Your task to perform on an android device: add a label to a message in the gmail app Image 0: 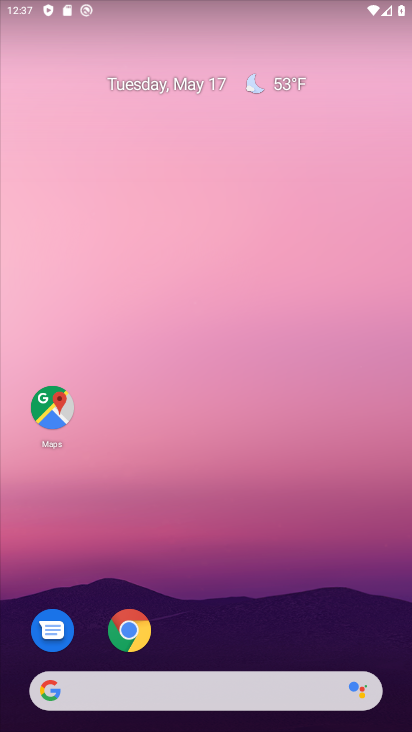
Step 0: drag from (195, 629) to (219, 163)
Your task to perform on an android device: add a label to a message in the gmail app Image 1: 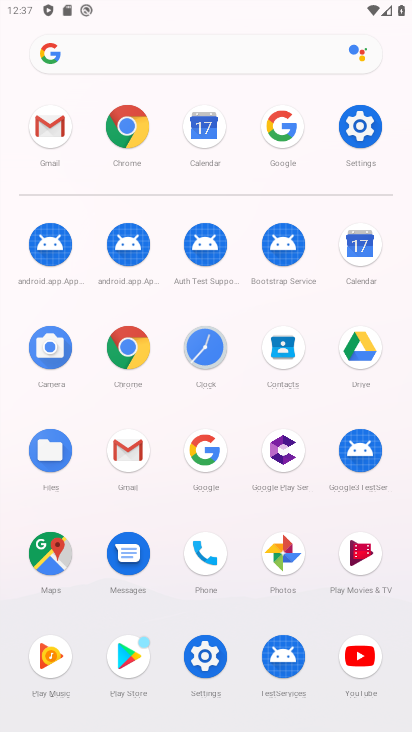
Step 1: click (138, 457)
Your task to perform on an android device: add a label to a message in the gmail app Image 2: 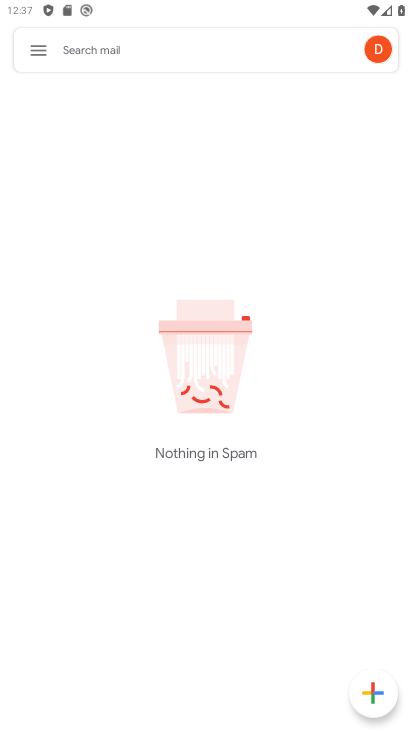
Step 2: click (39, 57)
Your task to perform on an android device: add a label to a message in the gmail app Image 3: 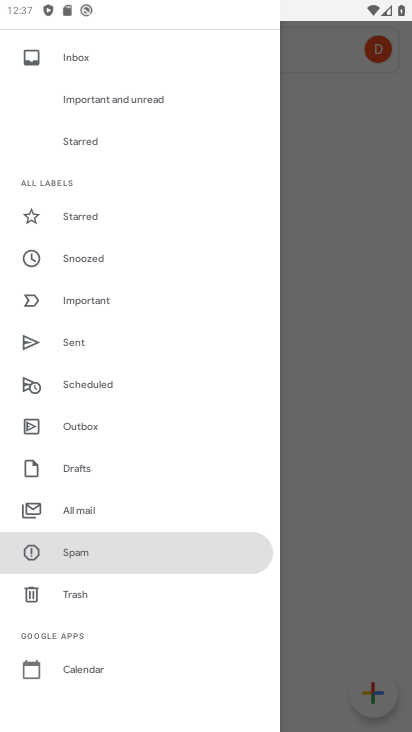
Step 3: click (98, 517)
Your task to perform on an android device: add a label to a message in the gmail app Image 4: 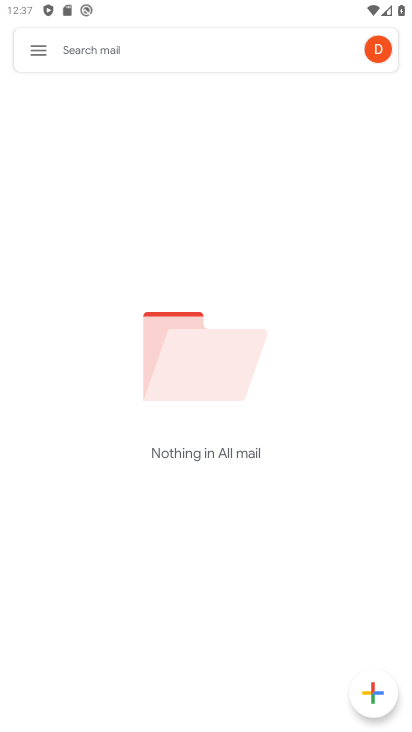
Step 4: task complete